Your task to perform on an android device: open app "Firefox Browser" Image 0: 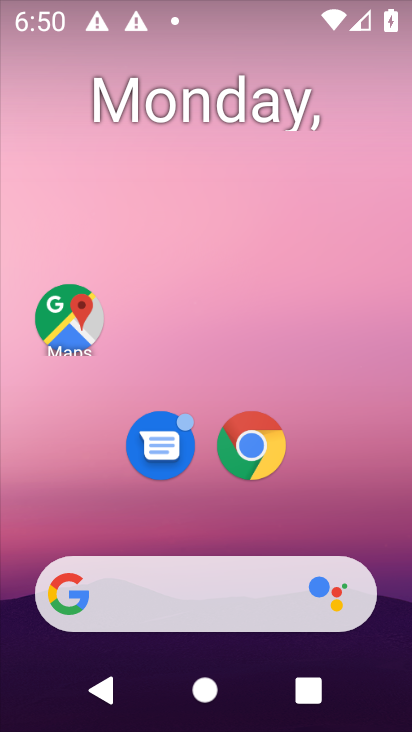
Step 0: drag from (406, 574) to (266, 80)
Your task to perform on an android device: open app "Firefox Browser" Image 1: 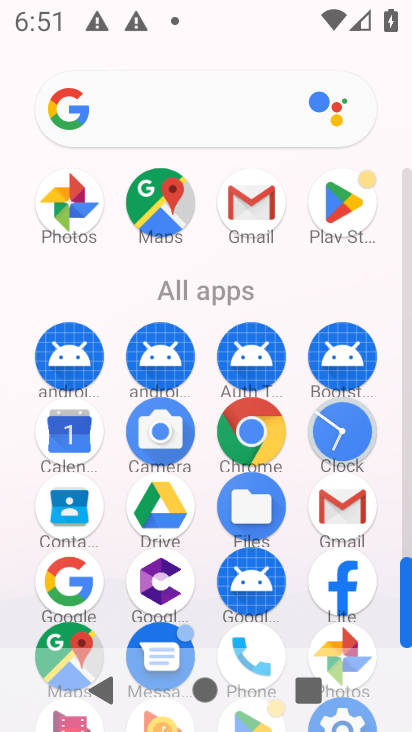
Step 1: click (350, 205)
Your task to perform on an android device: open app "Firefox Browser" Image 2: 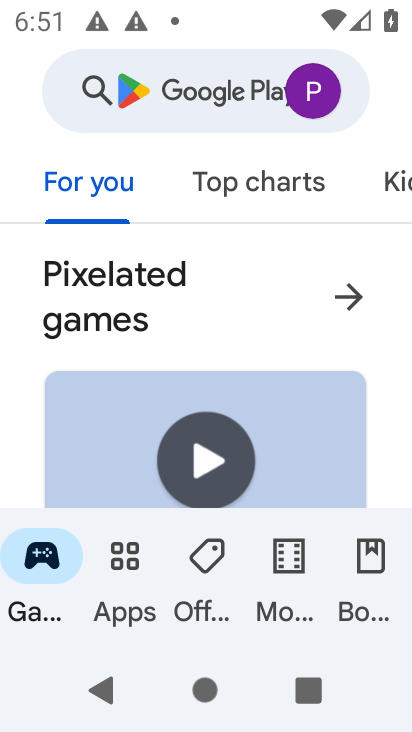
Step 2: click (175, 100)
Your task to perform on an android device: open app "Firefox Browser" Image 3: 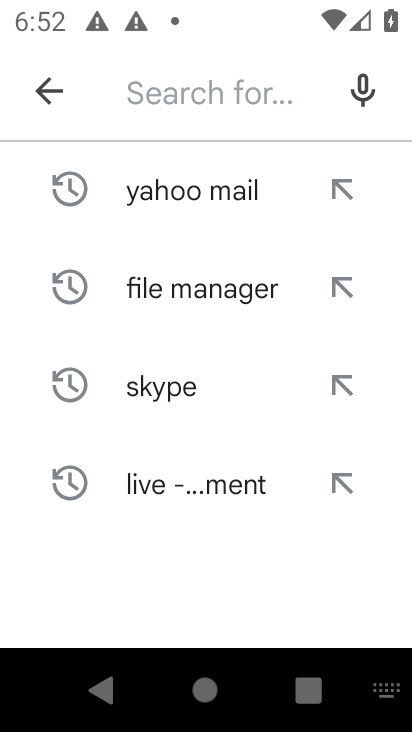
Step 3: type "Firefox Browser"
Your task to perform on an android device: open app "Firefox Browser" Image 4: 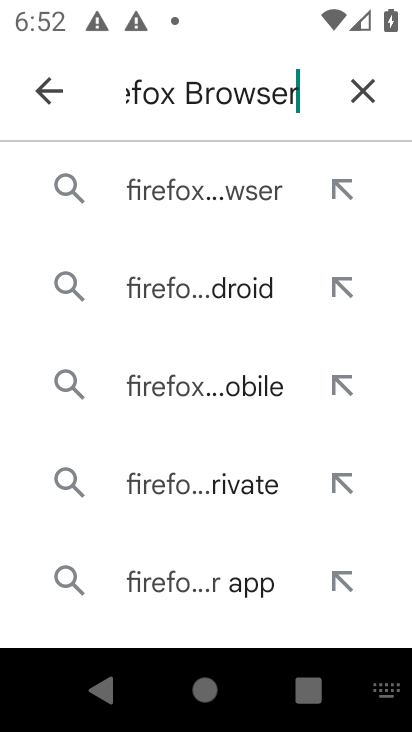
Step 4: click (192, 186)
Your task to perform on an android device: open app "Firefox Browser" Image 5: 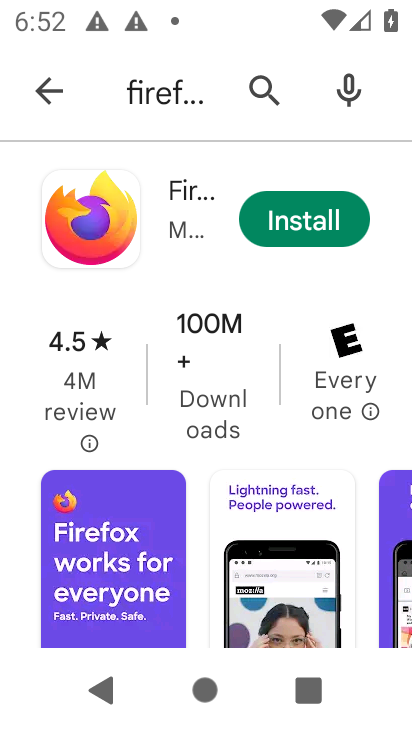
Step 5: task complete